Your task to perform on an android device: search for starred emails in the gmail app Image 0: 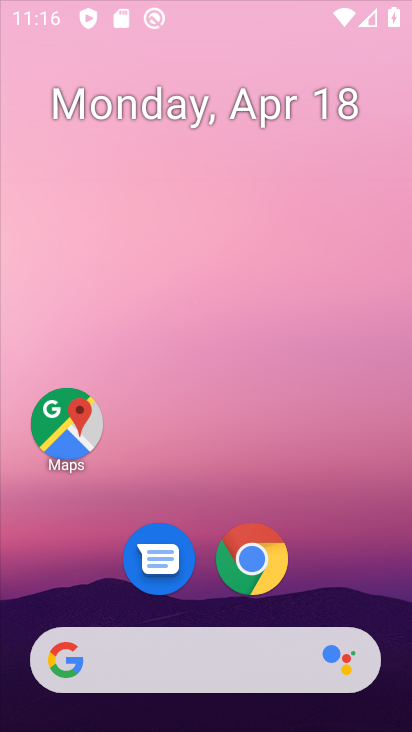
Step 0: click (367, 4)
Your task to perform on an android device: search for starred emails in the gmail app Image 1: 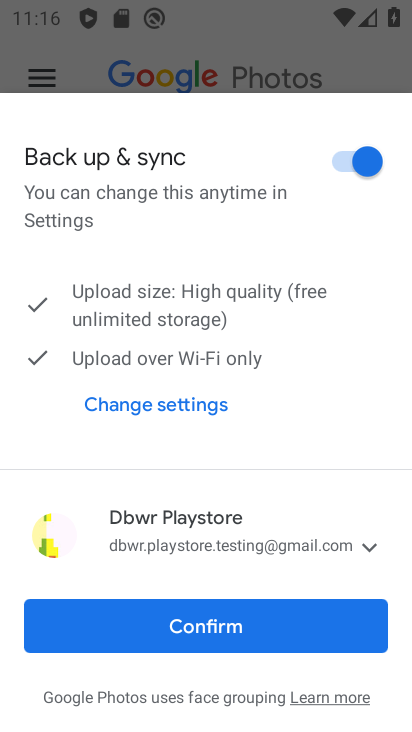
Step 1: click (186, 612)
Your task to perform on an android device: search for starred emails in the gmail app Image 2: 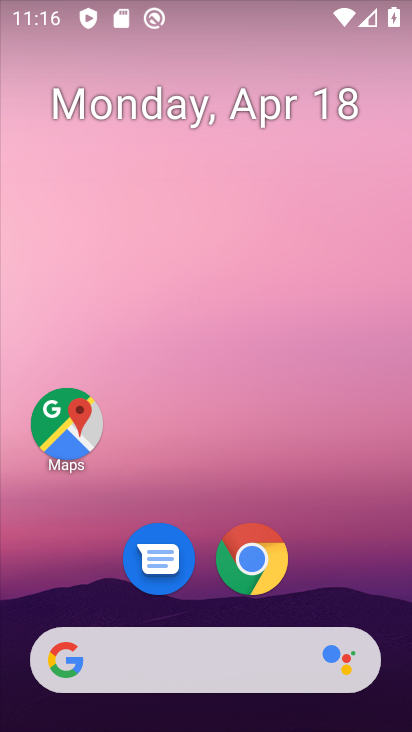
Step 2: drag from (247, 627) to (282, 3)
Your task to perform on an android device: search for starred emails in the gmail app Image 3: 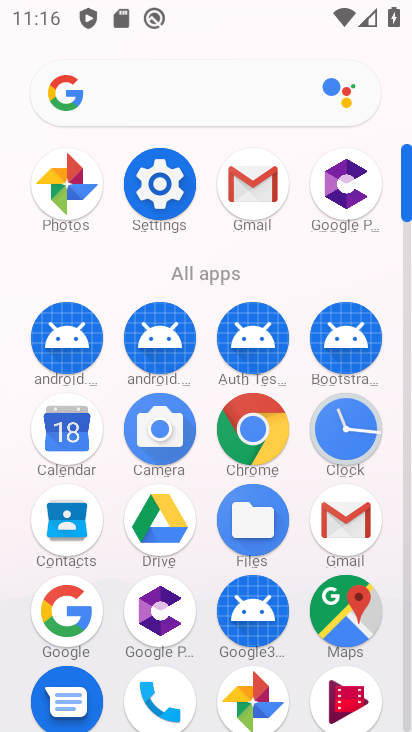
Step 3: click (333, 520)
Your task to perform on an android device: search for starred emails in the gmail app Image 4: 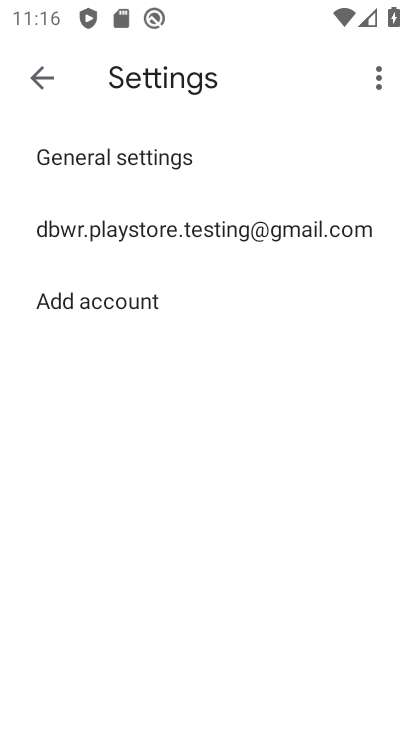
Step 4: click (35, 76)
Your task to perform on an android device: search for starred emails in the gmail app Image 5: 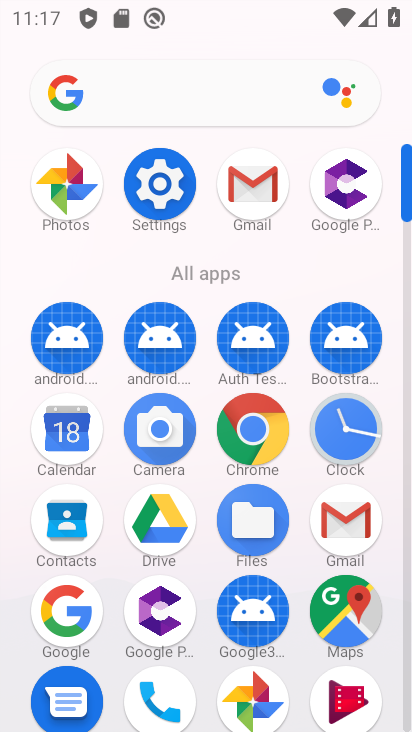
Step 5: click (238, 555)
Your task to perform on an android device: search for starred emails in the gmail app Image 6: 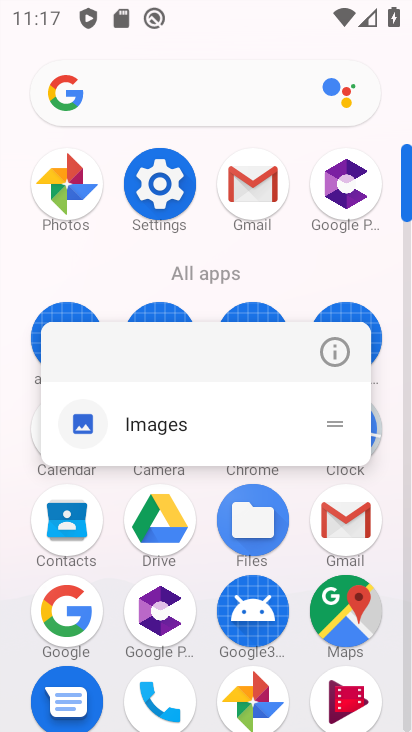
Step 6: click (338, 522)
Your task to perform on an android device: search for starred emails in the gmail app Image 7: 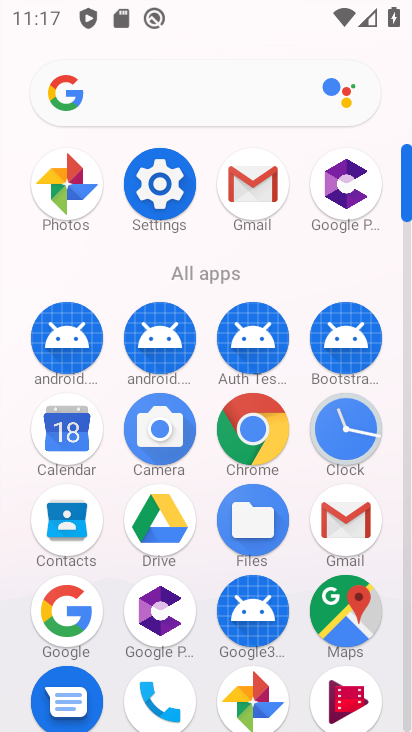
Step 7: task complete